Your task to perform on an android device: Go to accessibility settings Image 0: 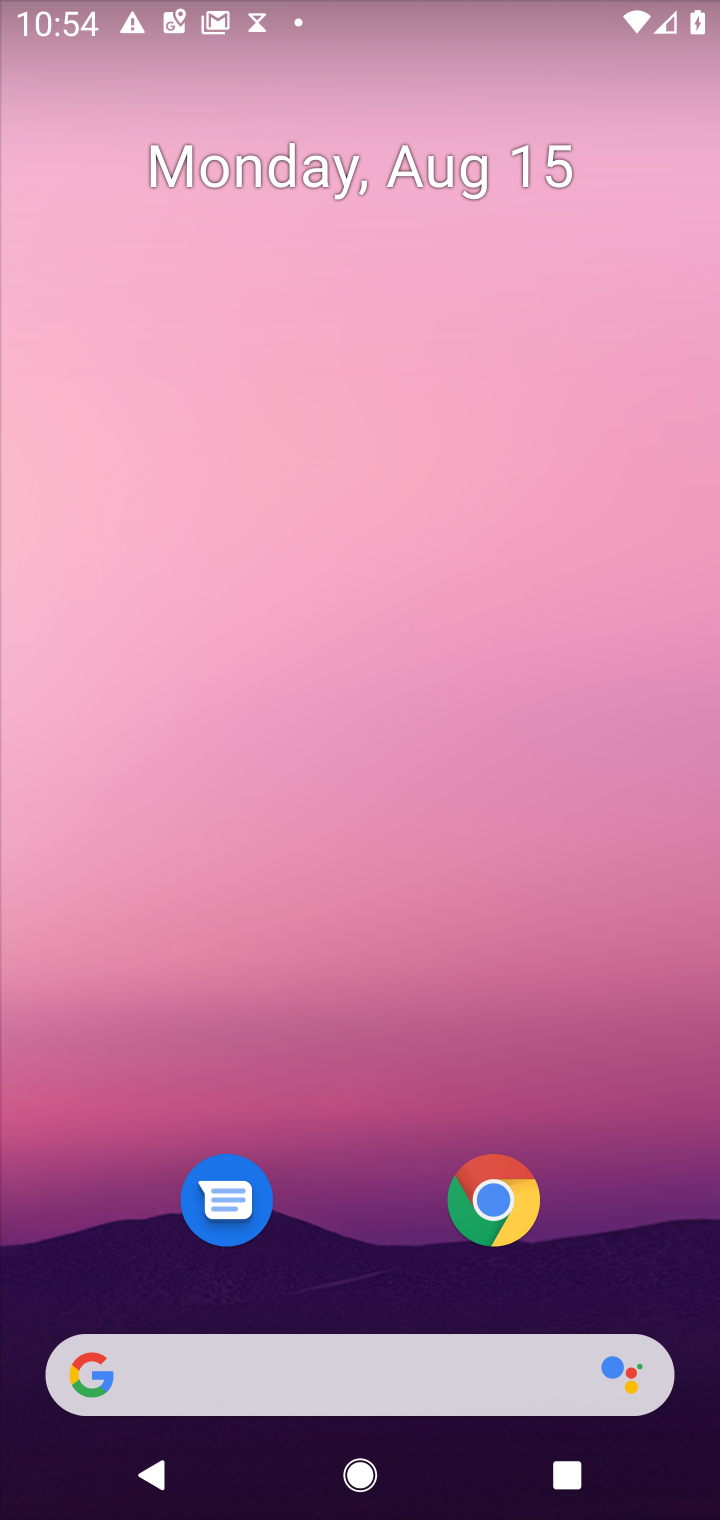
Step 0: drag from (351, 1038) to (413, 365)
Your task to perform on an android device: Go to accessibility settings Image 1: 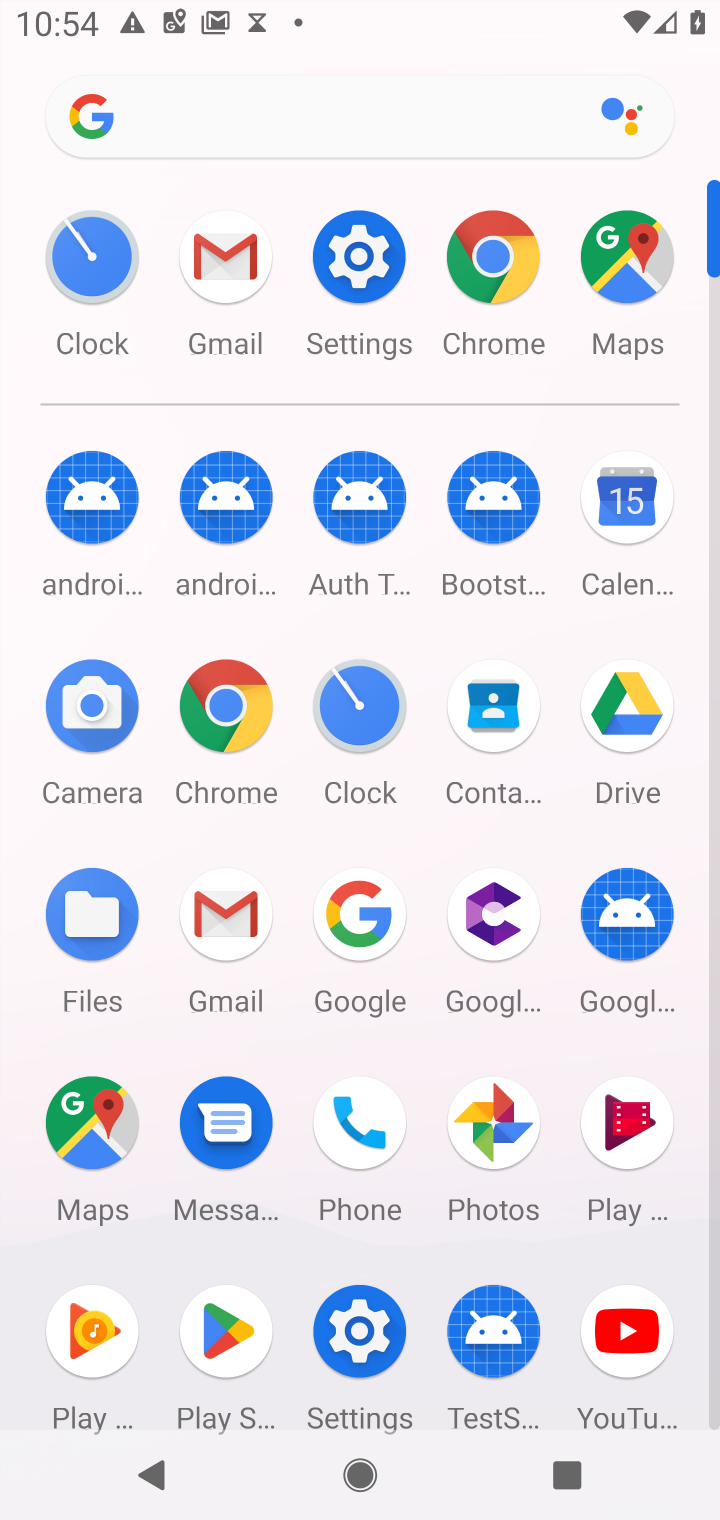
Step 1: click (351, 274)
Your task to perform on an android device: Go to accessibility settings Image 2: 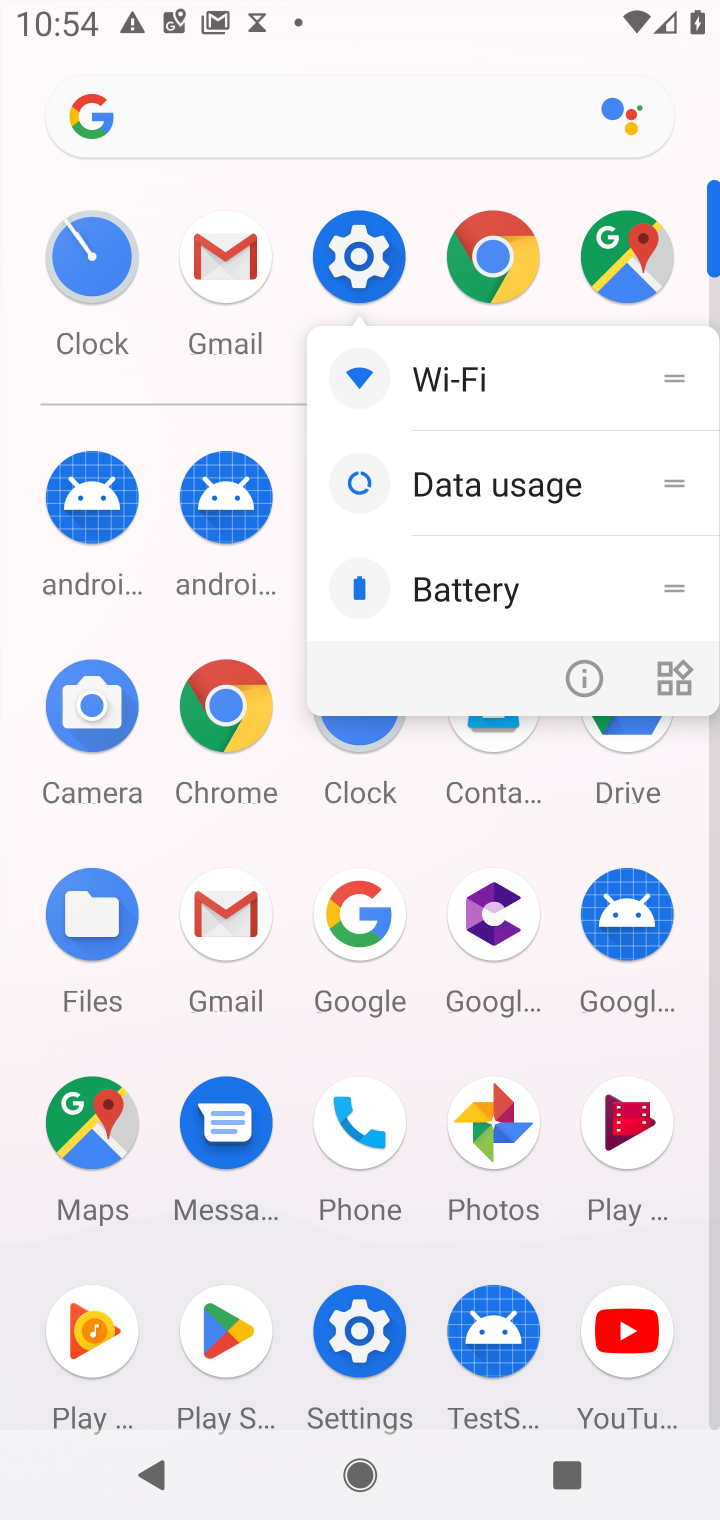
Step 2: click (342, 256)
Your task to perform on an android device: Go to accessibility settings Image 3: 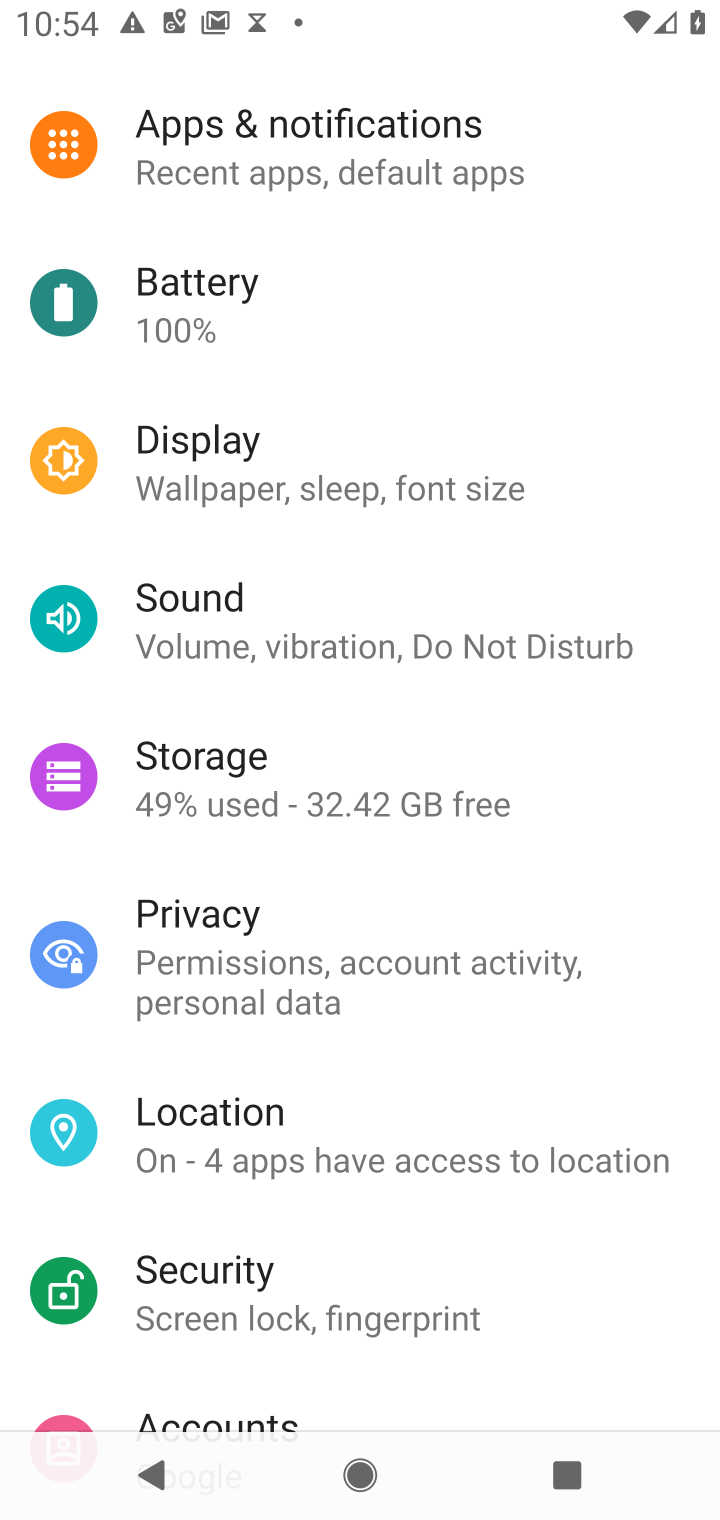
Step 3: drag from (278, 1304) to (412, 615)
Your task to perform on an android device: Go to accessibility settings Image 4: 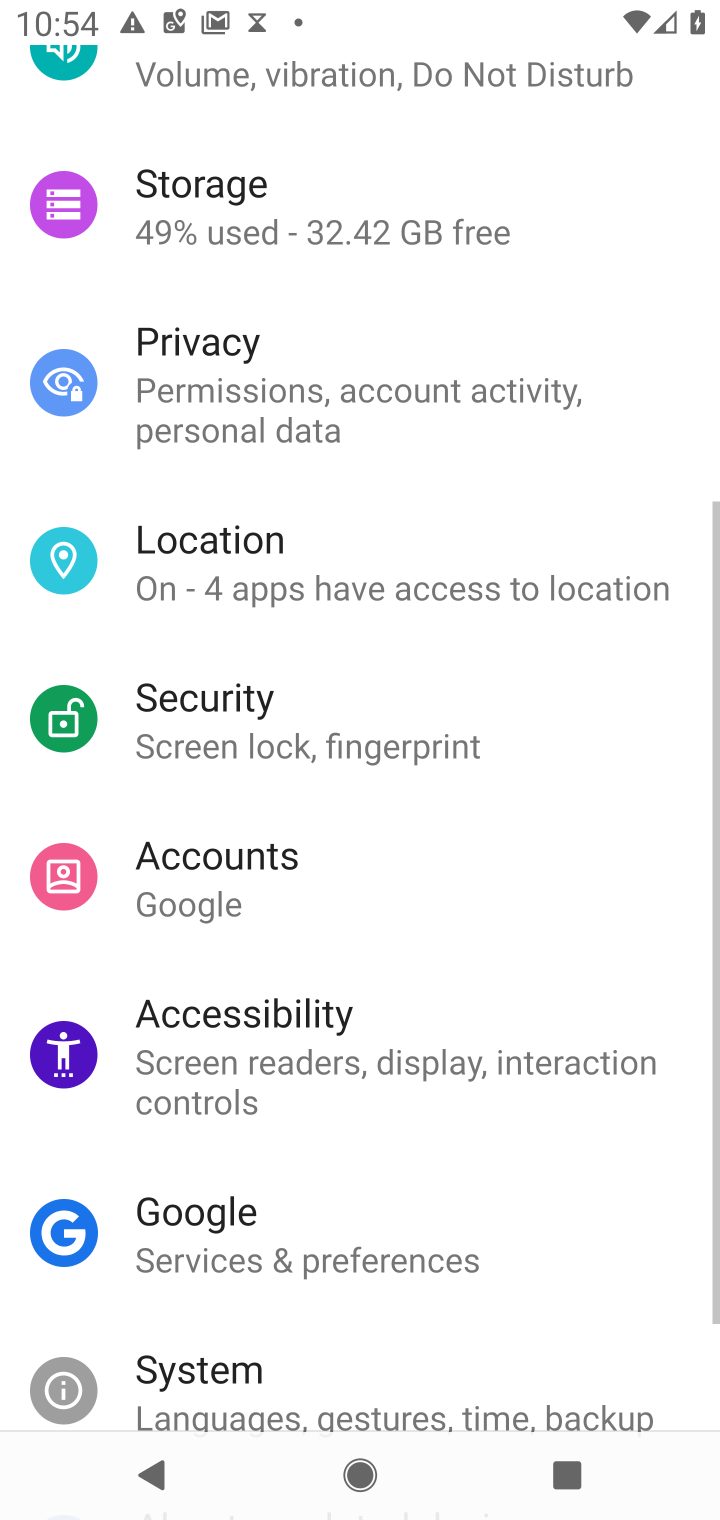
Step 4: click (319, 1045)
Your task to perform on an android device: Go to accessibility settings Image 5: 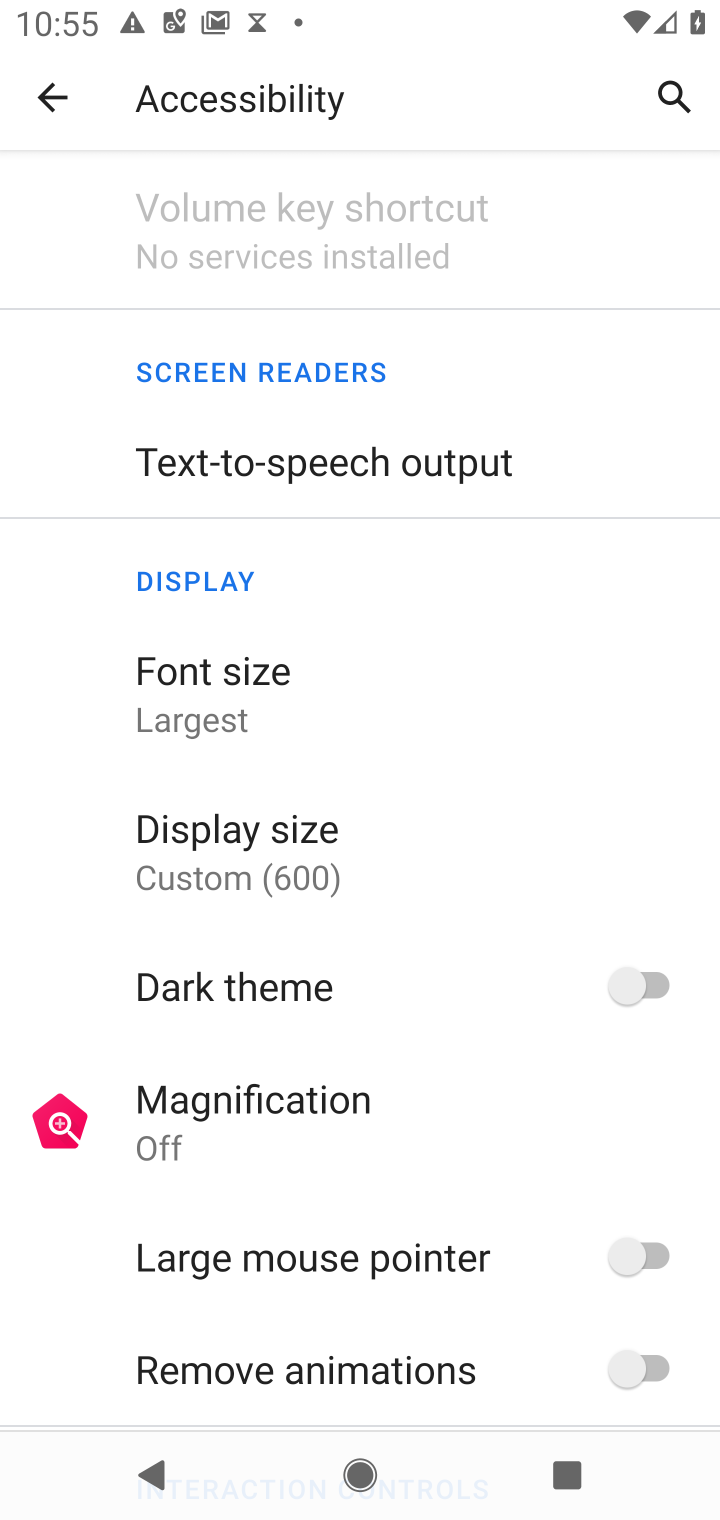
Step 5: task complete